Your task to perform on an android device: Go to Reddit.com Image 0: 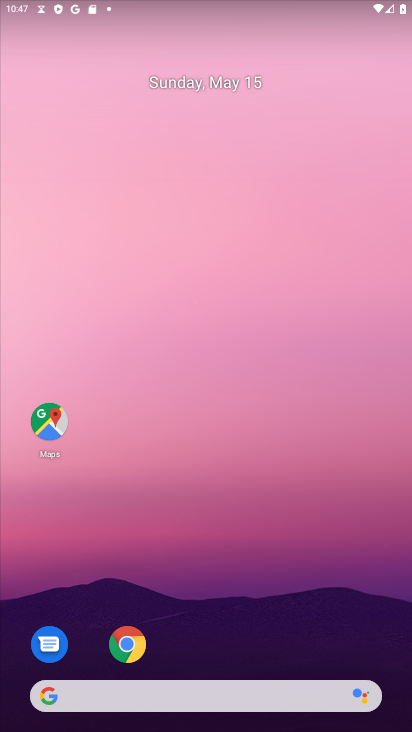
Step 0: click (130, 650)
Your task to perform on an android device: Go to Reddit.com Image 1: 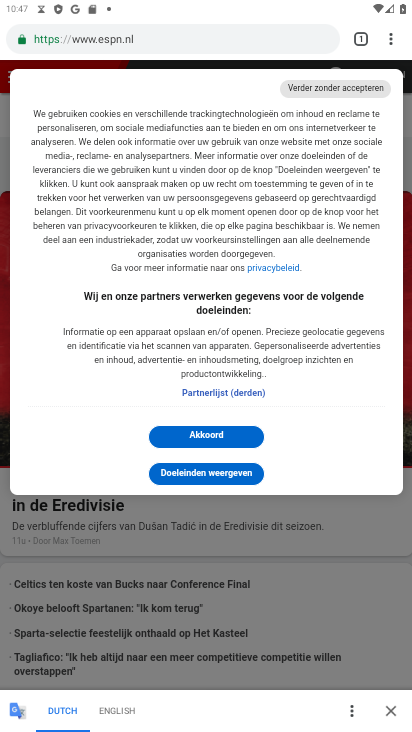
Step 1: click (361, 29)
Your task to perform on an android device: Go to Reddit.com Image 2: 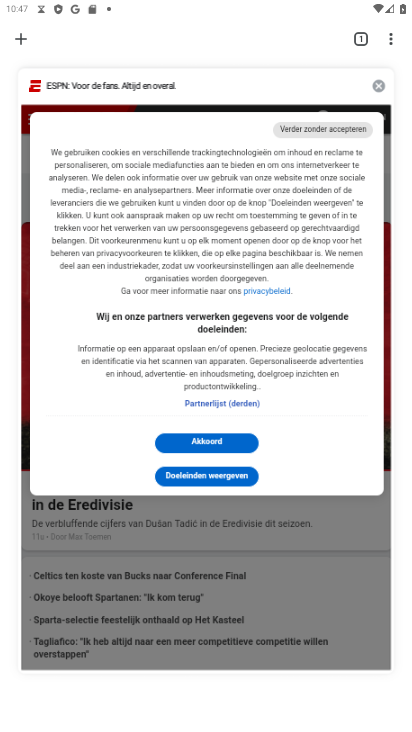
Step 2: click (24, 40)
Your task to perform on an android device: Go to Reddit.com Image 3: 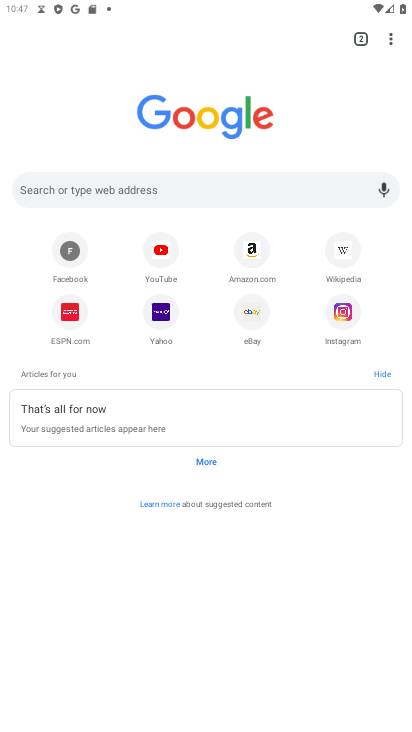
Step 3: click (213, 185)
Your task to perform on an android device: Go to Reddit.com Image 4: 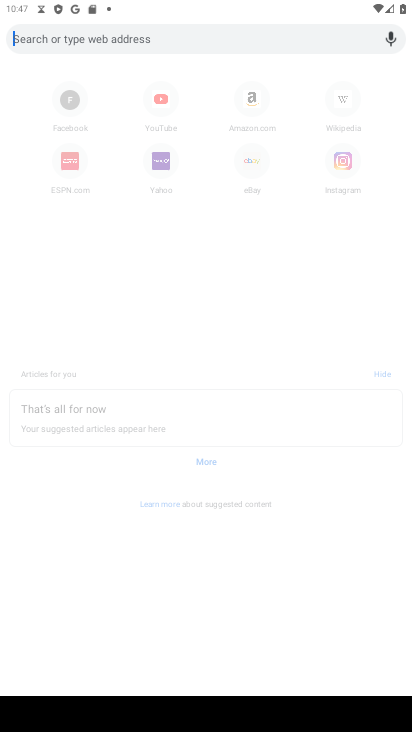
Step 4: type "Reddit.com"
Your task to perform on an android device: Go to Reddit.com Image 5: 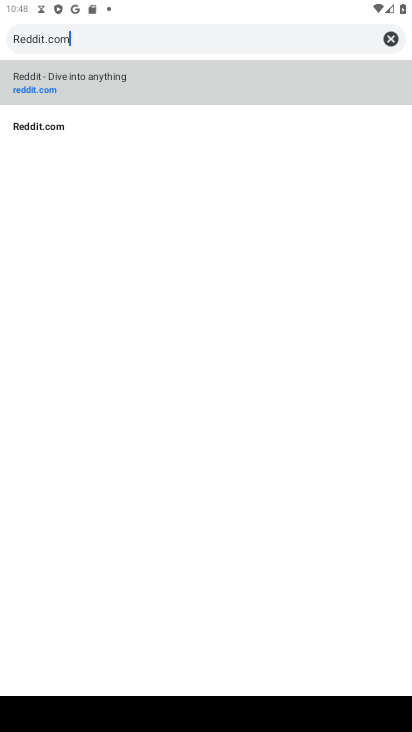
Step 5: click (54, 91)
Your task to perform on an android device: Go to Reddit.com Image 6: 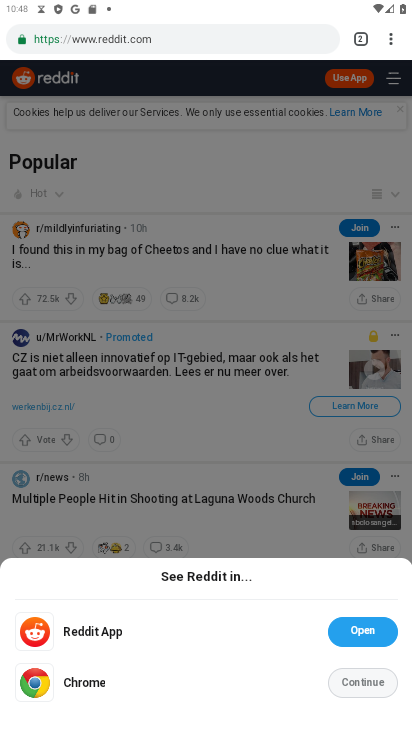
Step 6: click (357, 690)
Your task to perform on an android device: Go to Reddit.com Image 7: 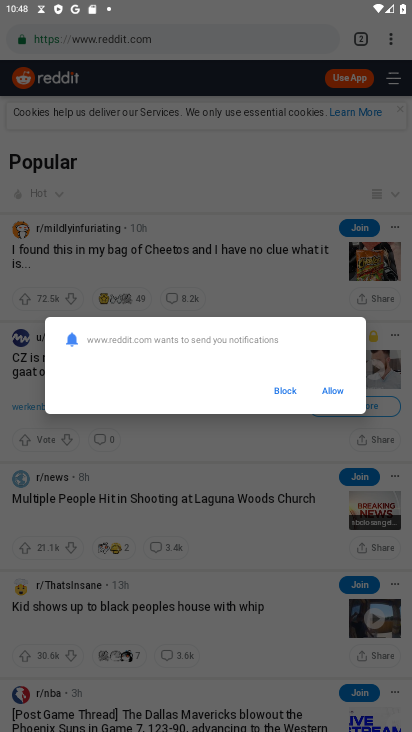
Step 7: task complete